Your task to perform on an android device: Check the weather Image 0: 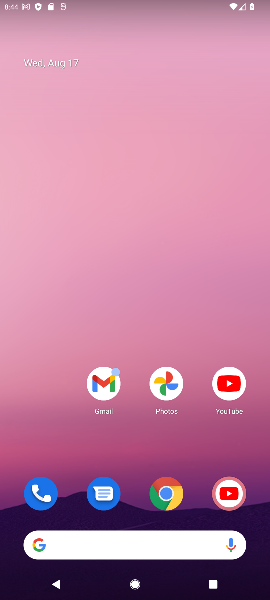
Step 0: drag from (114, 559) to (264, 289)
Your task to perform on an android device: Check the weather Image 1: 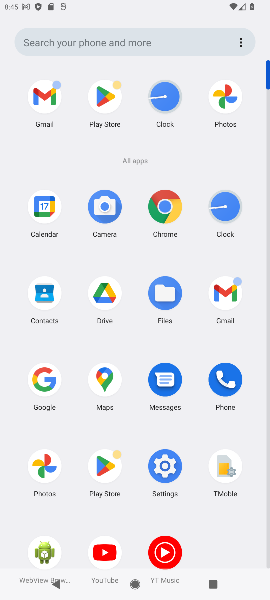
Step 1: click (46, 376)
Your task to perform on an android device: Check the weather Image 2: 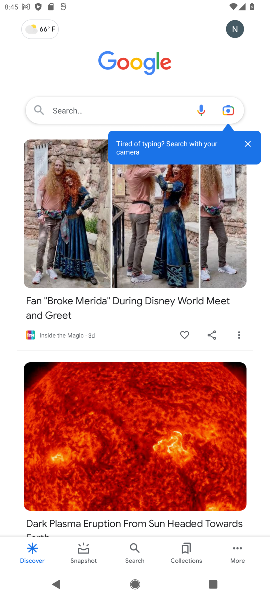
Step 2: click (26, 30)
Your task to perform on an android device: Check the weather Image 3: 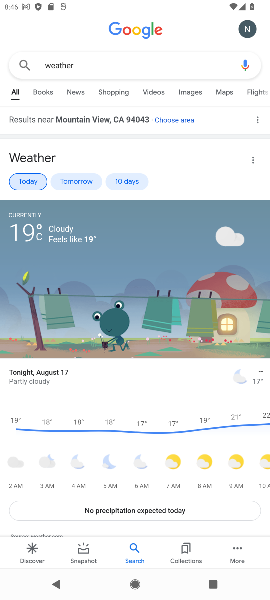
Step 3: task complete